Your task to perform on an android device: Search for good BBQ restaurants Image 0: 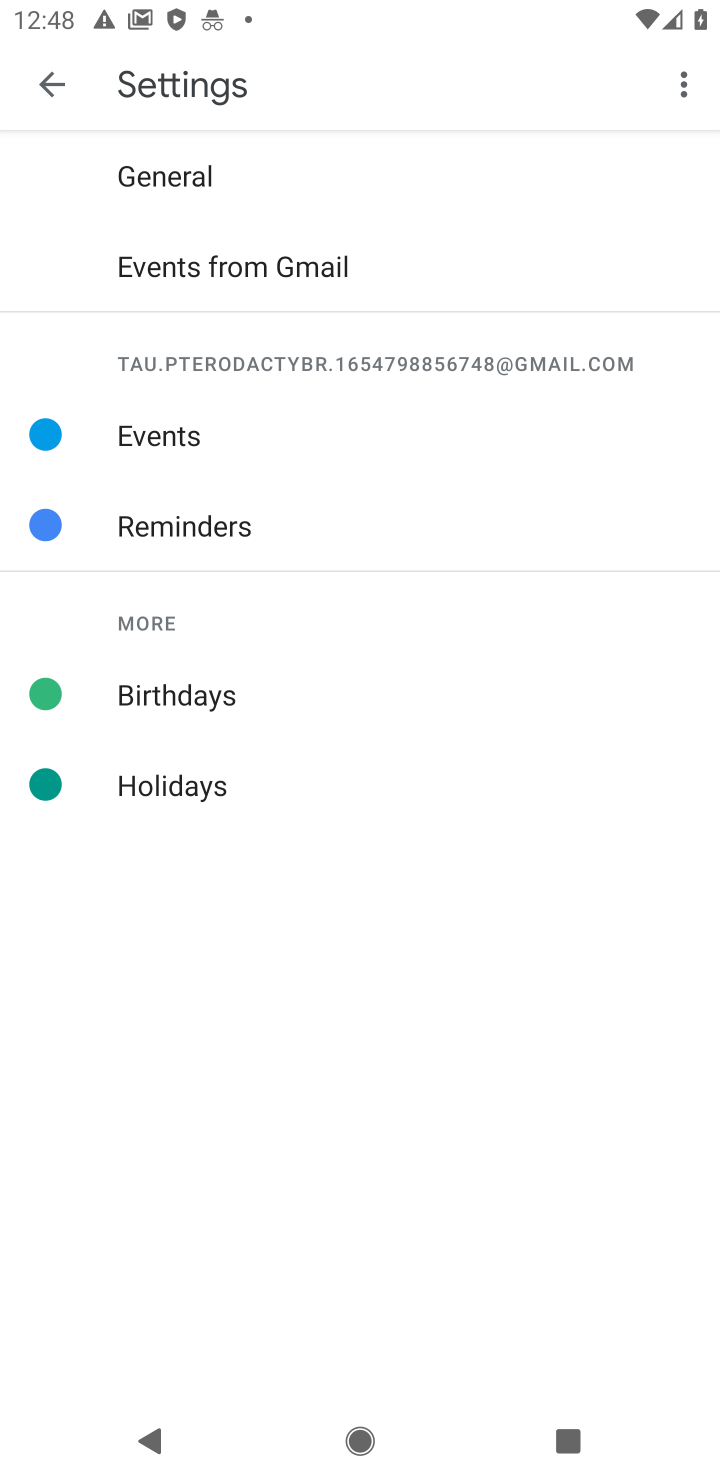
Step 0: press home button
Your task to perform on an android device: Search for good BBQ restaurants Image 1: 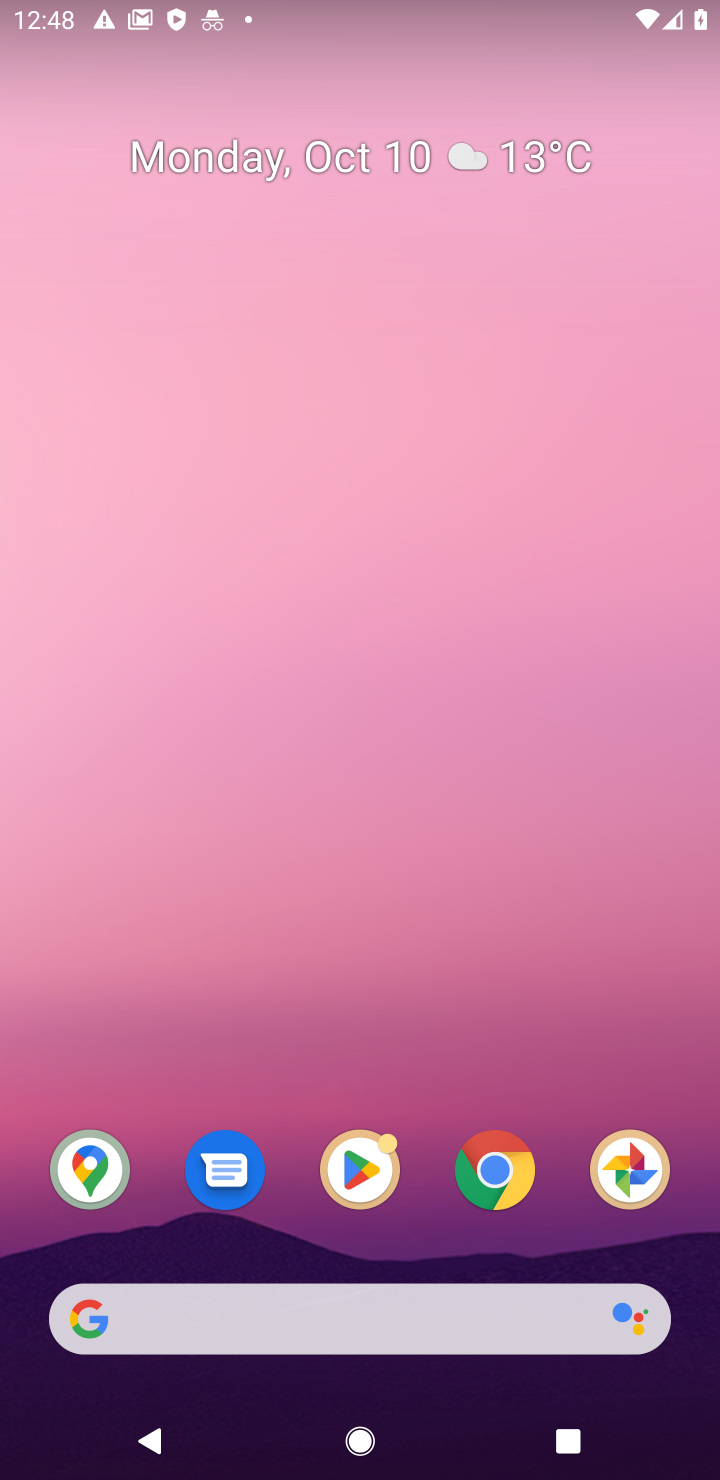
Step 1: click (494, 1170)
Your task to perform on an android device: Search for good BBQ restaurants Image 2: 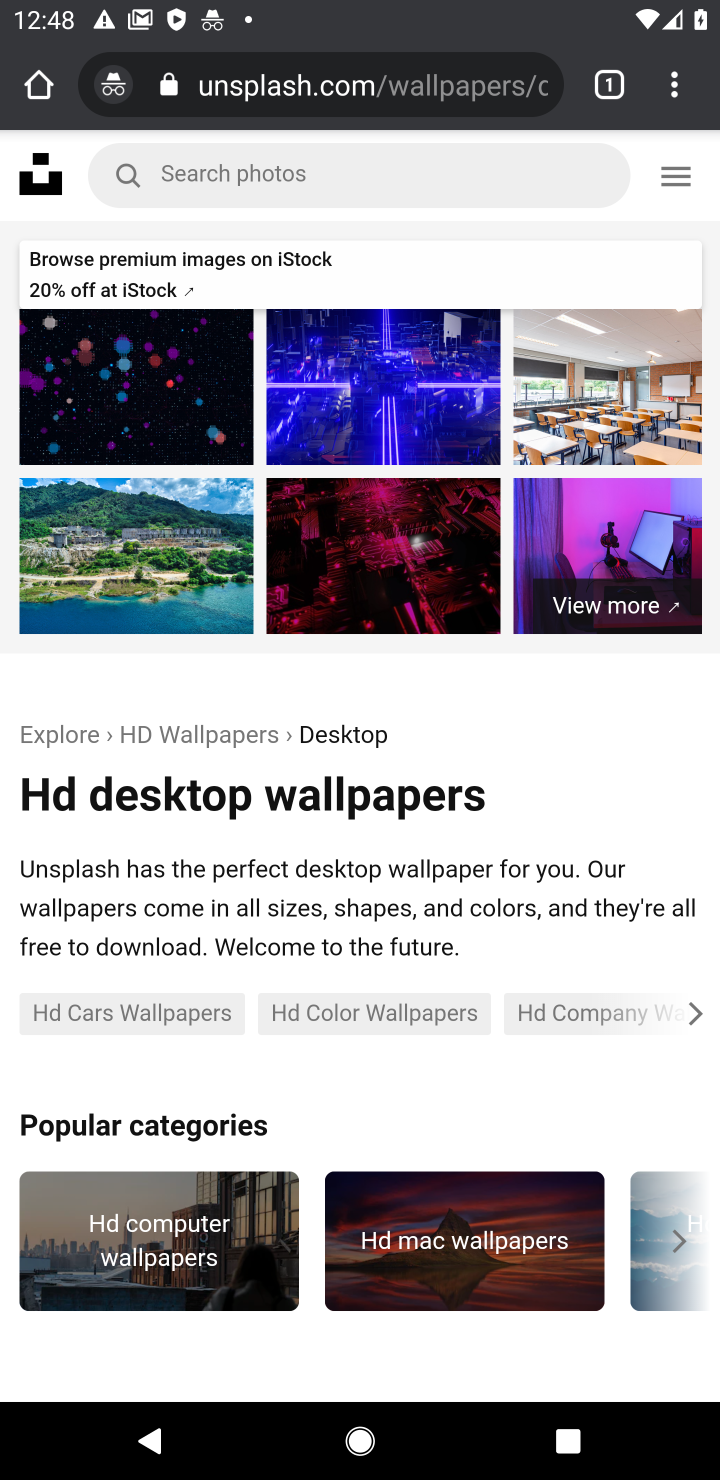
Step 2: click (298, 75)
Your task to perform on an android device: Search for good BBQ restaurants Image 3: 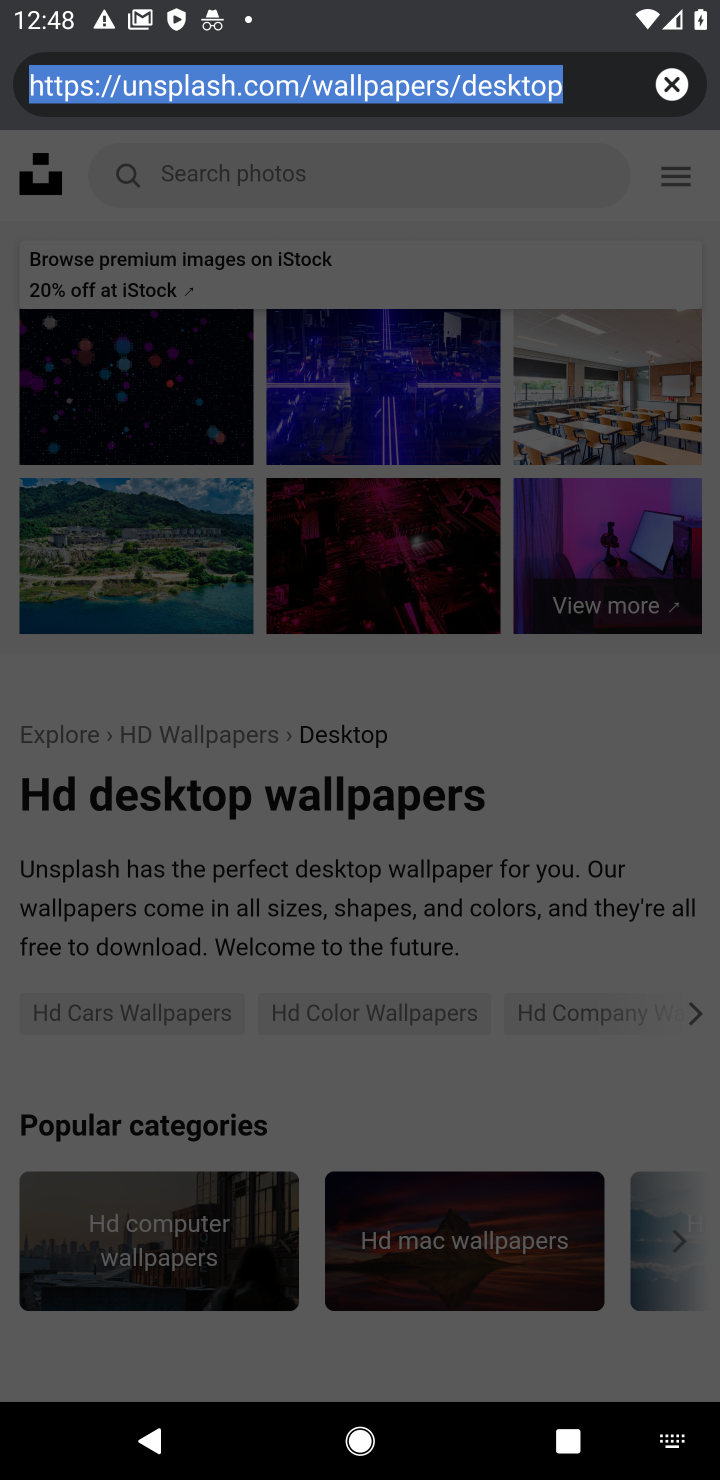
Step 3: click (677, 92)
Your task to perform on an android device: Search for good BBQ restaurants Image 4: 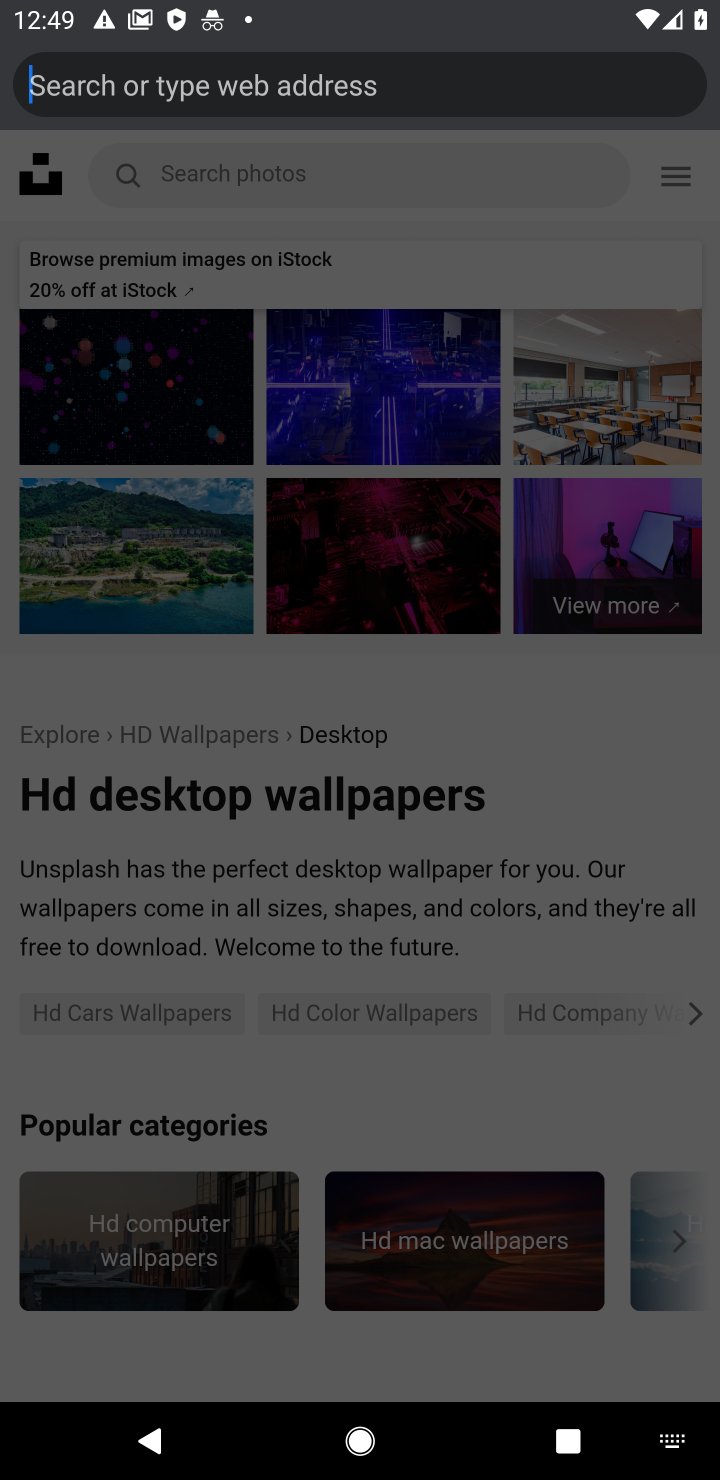
Step 4: type "good BBQ restaurants"
Your task to perform on an android device: Search for good BBQ restaurants Image 5: 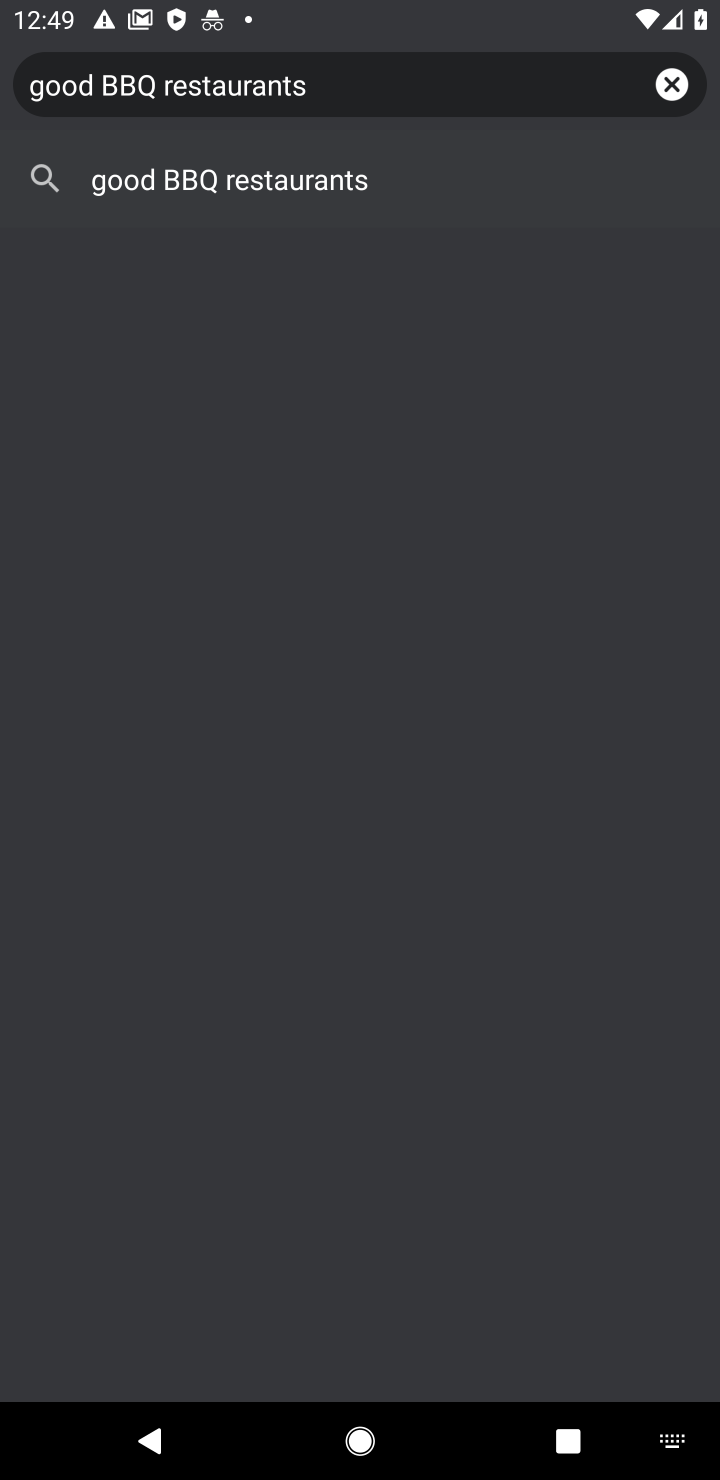
Step 5: click (291, 186)
Your task to perform on an android device: Search for good BBQ restaurants Image 6: 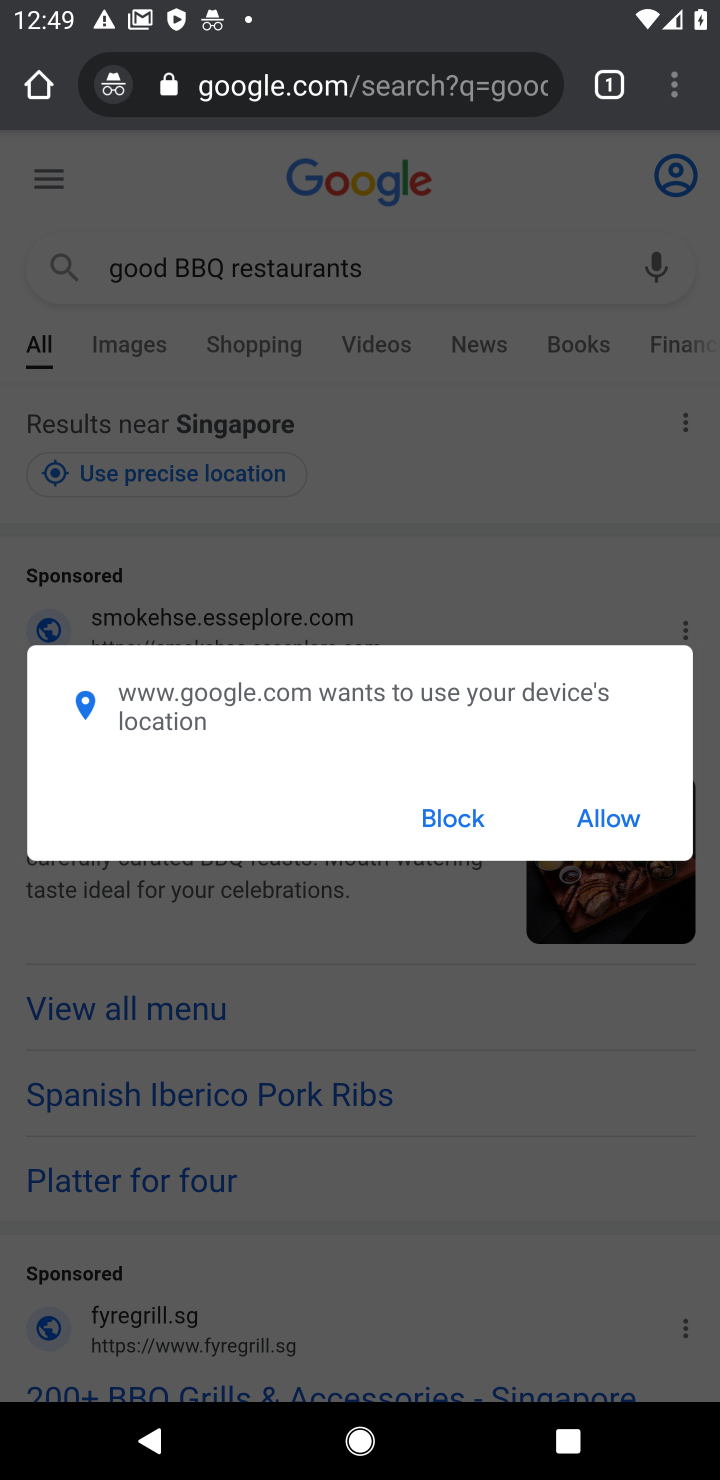
Step 6: click (620, 827)
Your task to perform on an android device: Search for good BBQ restaurants Image 7: 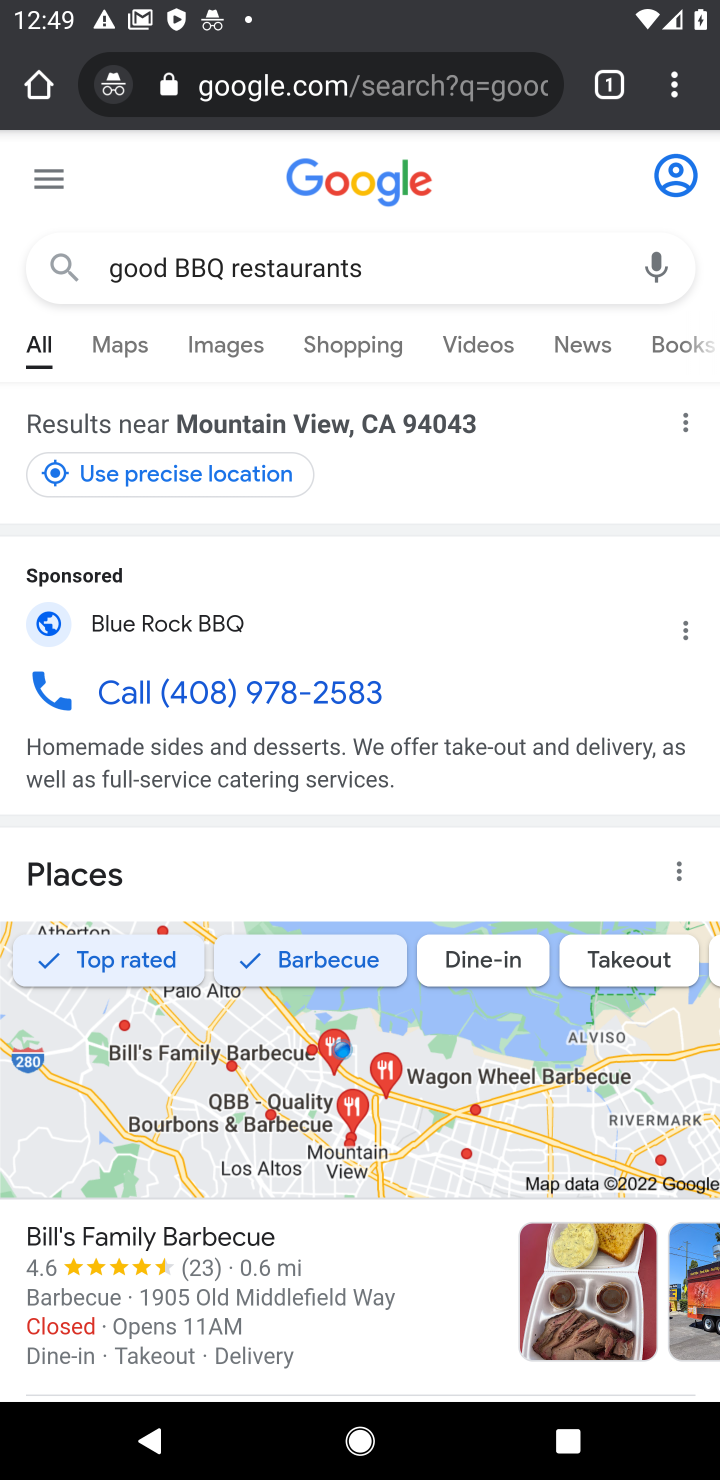
Step 7: task complete